Your task to perform on an android device: Go to display settings Image 0: 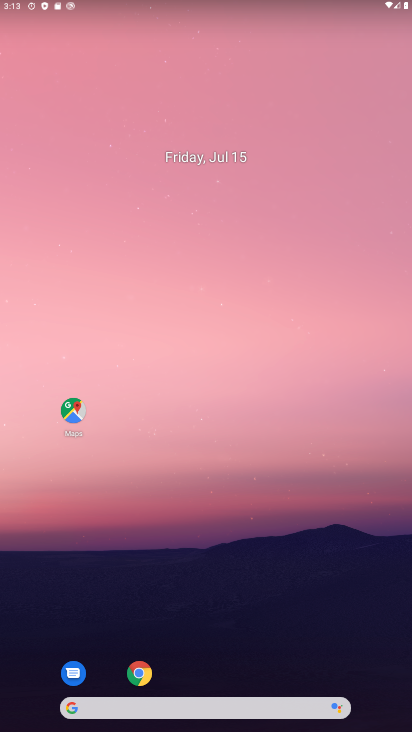
Step 0: drag from (208, 682) to (246, 169)
Your task to perform on an android device: Go to display settings Image 1: 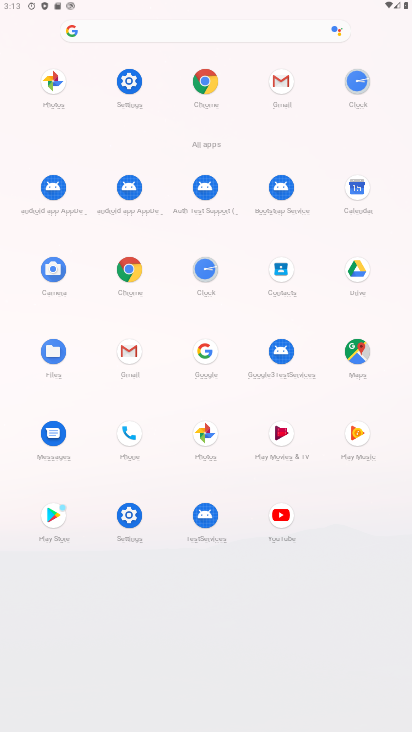
Step 1: click (132, 521)
Your task to perform on an android device: Go to display settings Image 2: 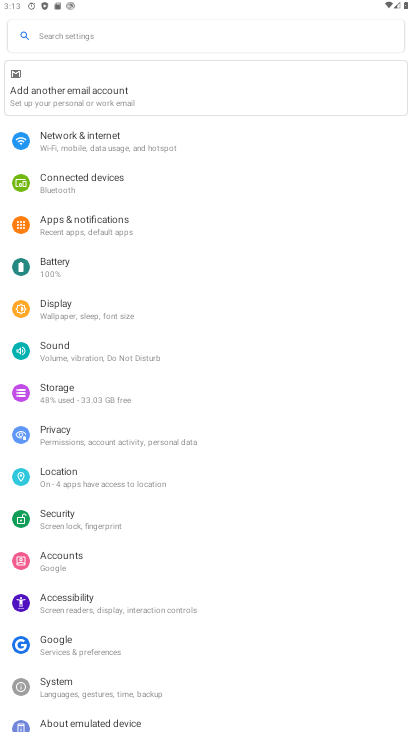
Step 2: click (93, 315)
Your task to perform on an android device: Go to display settings Image 3: 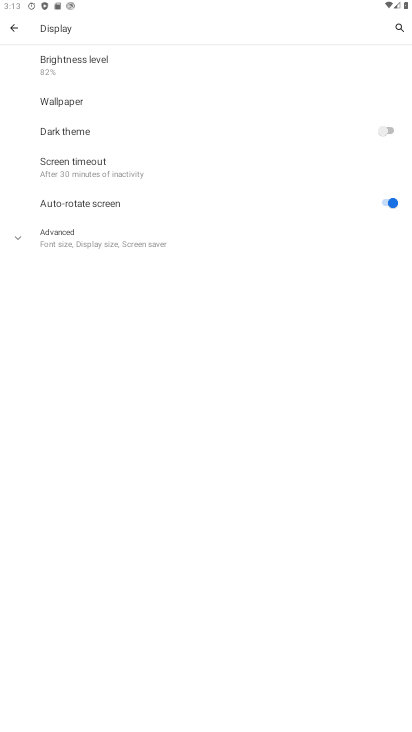
Step 3: task complete